Your task to perform on an android device: Open Google Maps Image 0: 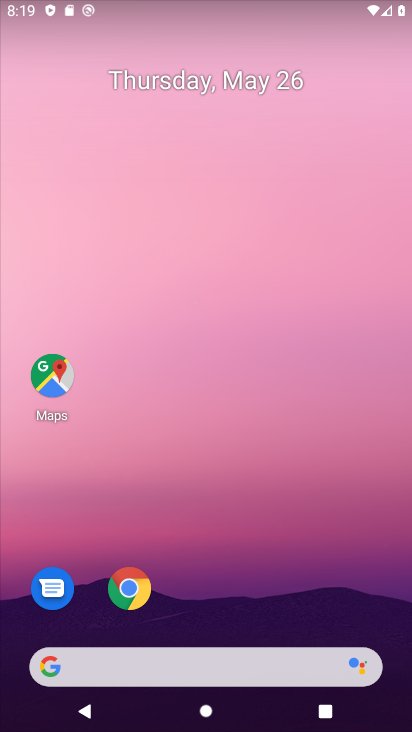
Step 0: drag from (234, 591) to (232, 13)
Your task to perform on an android device: Open Google Maps Image 1: 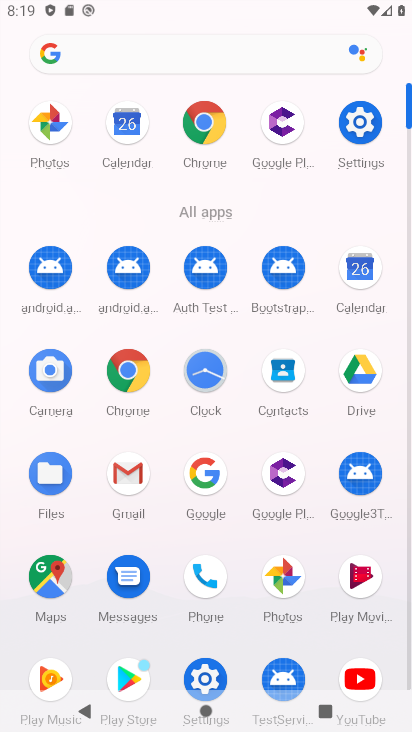
Step 1: click (53, 581)
Your task to perform on an android device: Open Google Maps Image 2: 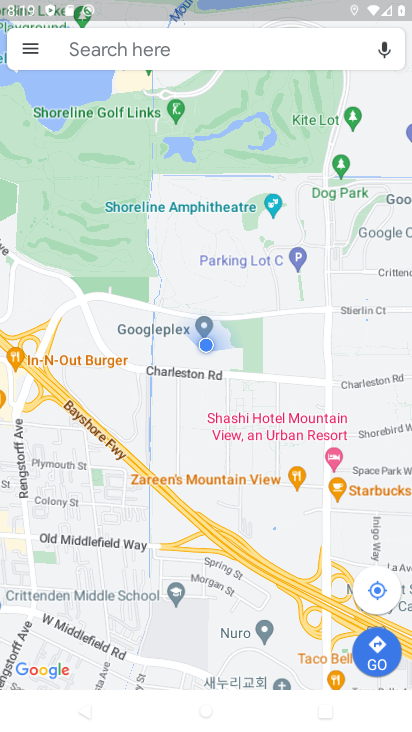
Step 2: task complete